Your task to perform on an android device: toggle airplane mode Image 0: 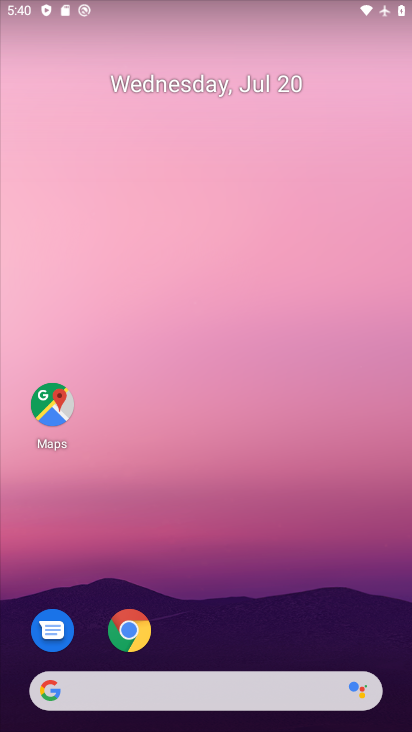
Step 0: drag from (285, 688) to (363, 0)
Your task to perform on an android device: toggle airplane mode Image 1: 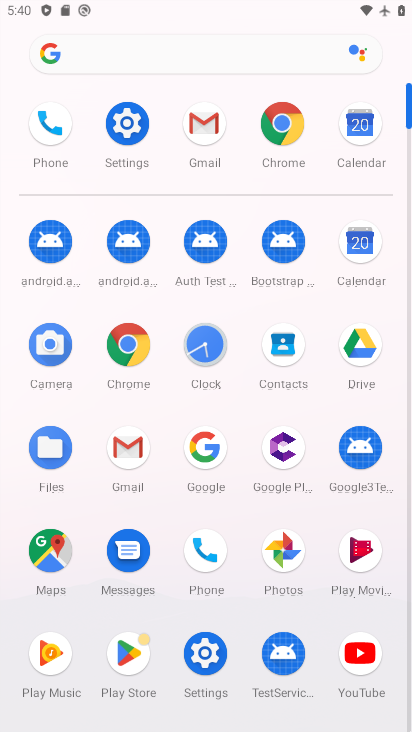
Step 1: click (129, 120)
Your task to perform on an android device: toggle airplane mode Image 2: 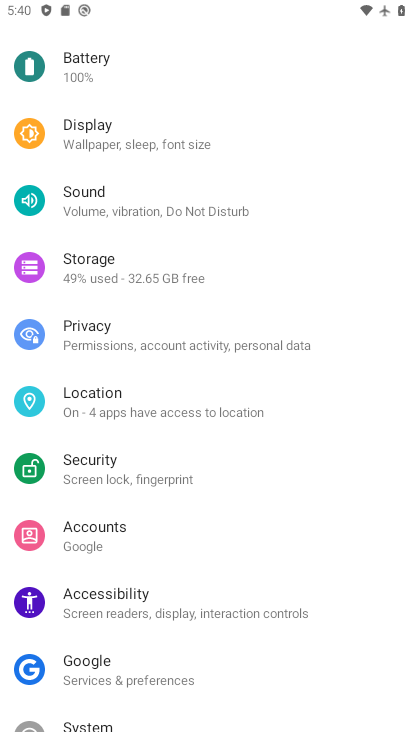
Step 2: drag from (176, 247) to (117, 719)
Your task to perform on an android device: toggle airplane mode Image 3: 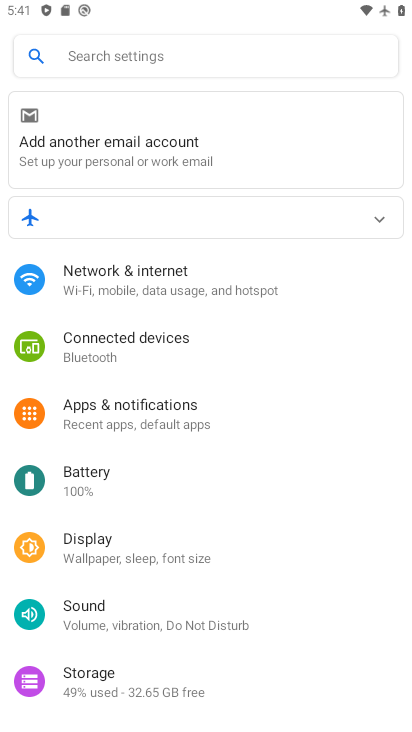
Step 3: click (154, 286)
Your task to perform on an android device: toggle airplane mode Image 4: 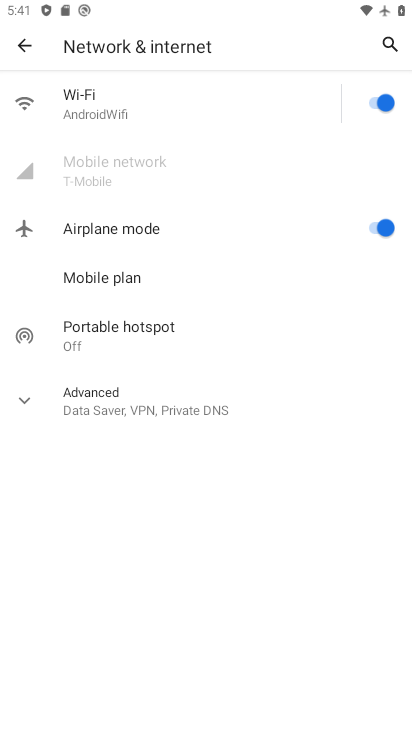
Step 4: click (380, 228)
Your task to perform on an android device: toggle airplane mode Image 5: 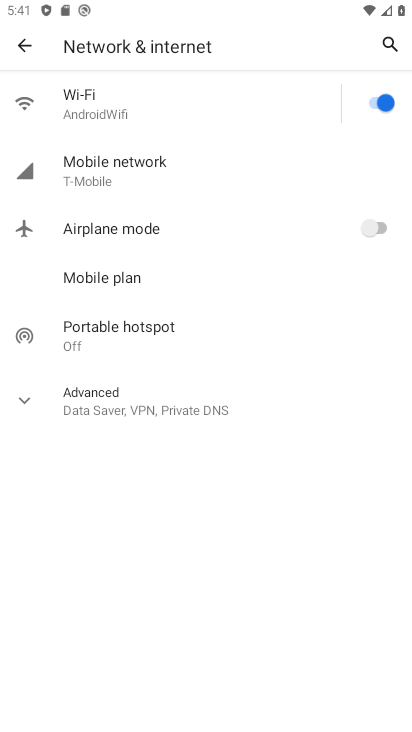
Step 5: task complete